Your task to perform on an android device: open sync settings in chrome Image 0: 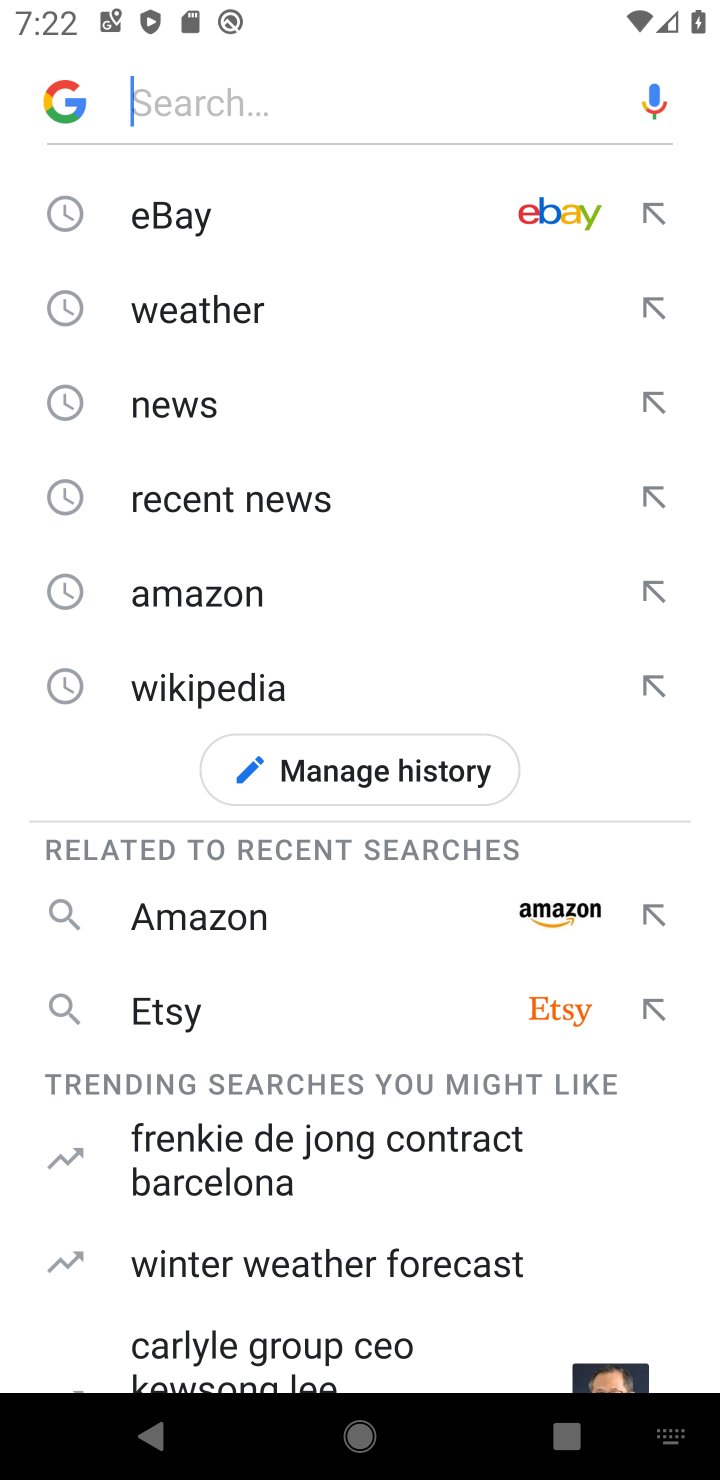
Step 0: press home button
Your task to perform on an android device: open sync settings in chrome Image 1: 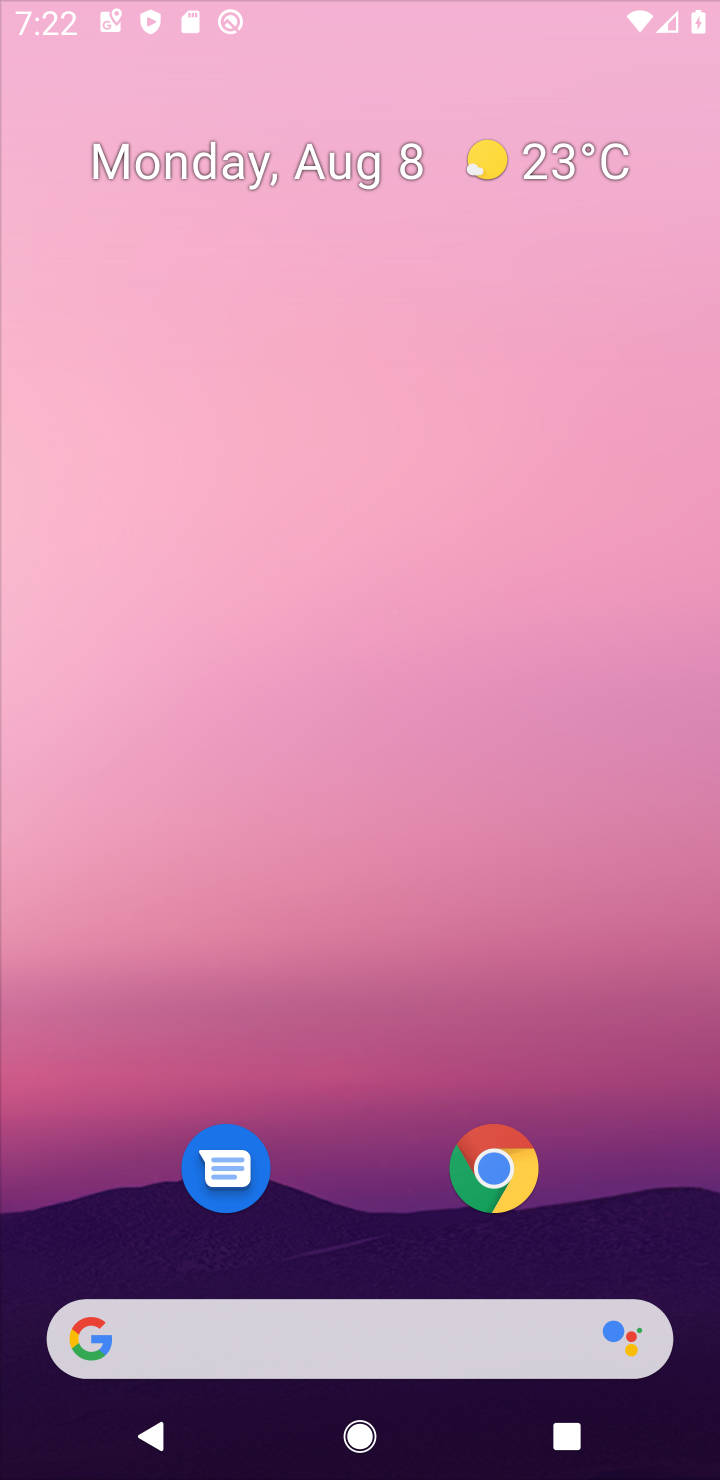
Step 1: drag from (613, 1213) to (190, 3)
Your task to perform on an android device: open sync settings in chrome Image 2: 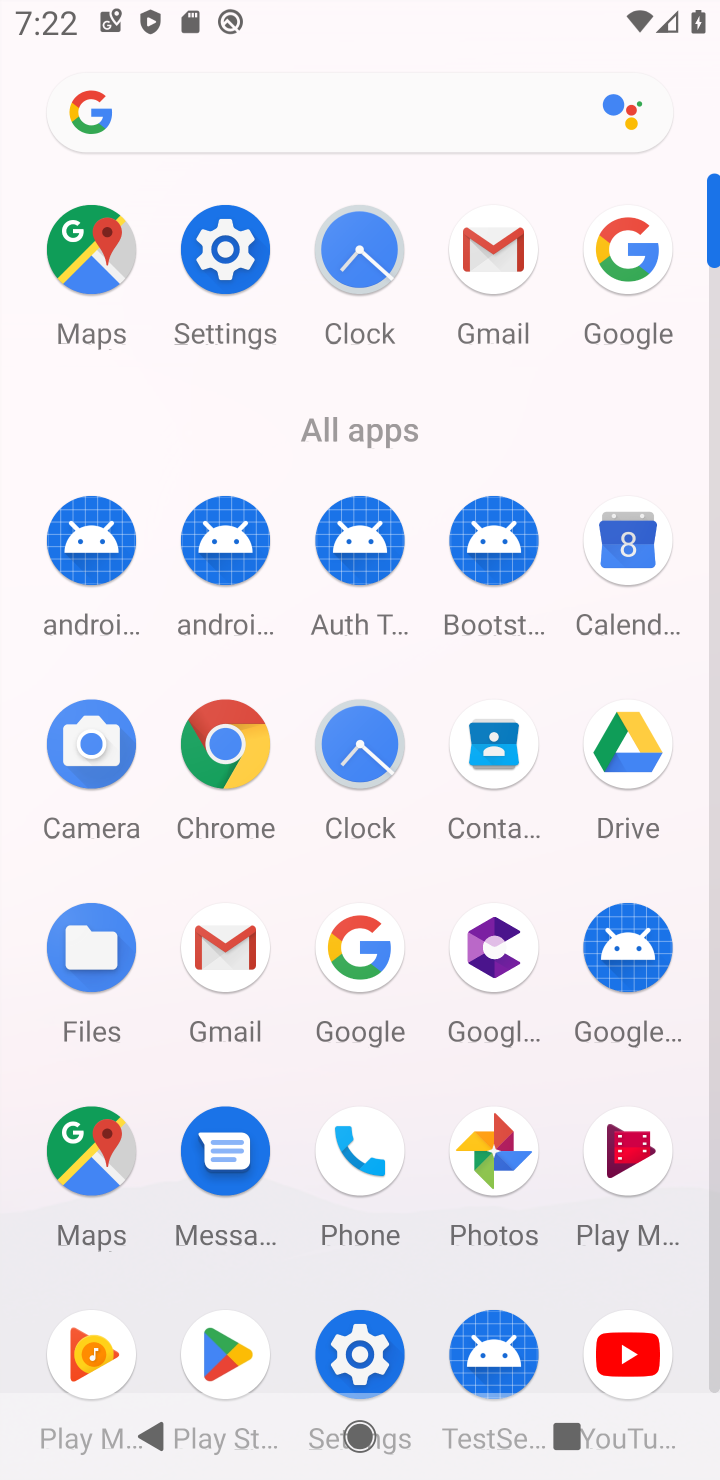
Step 2: click (212, 777)
Your task to perform on an android device: open sync settings in chrome Image 3: 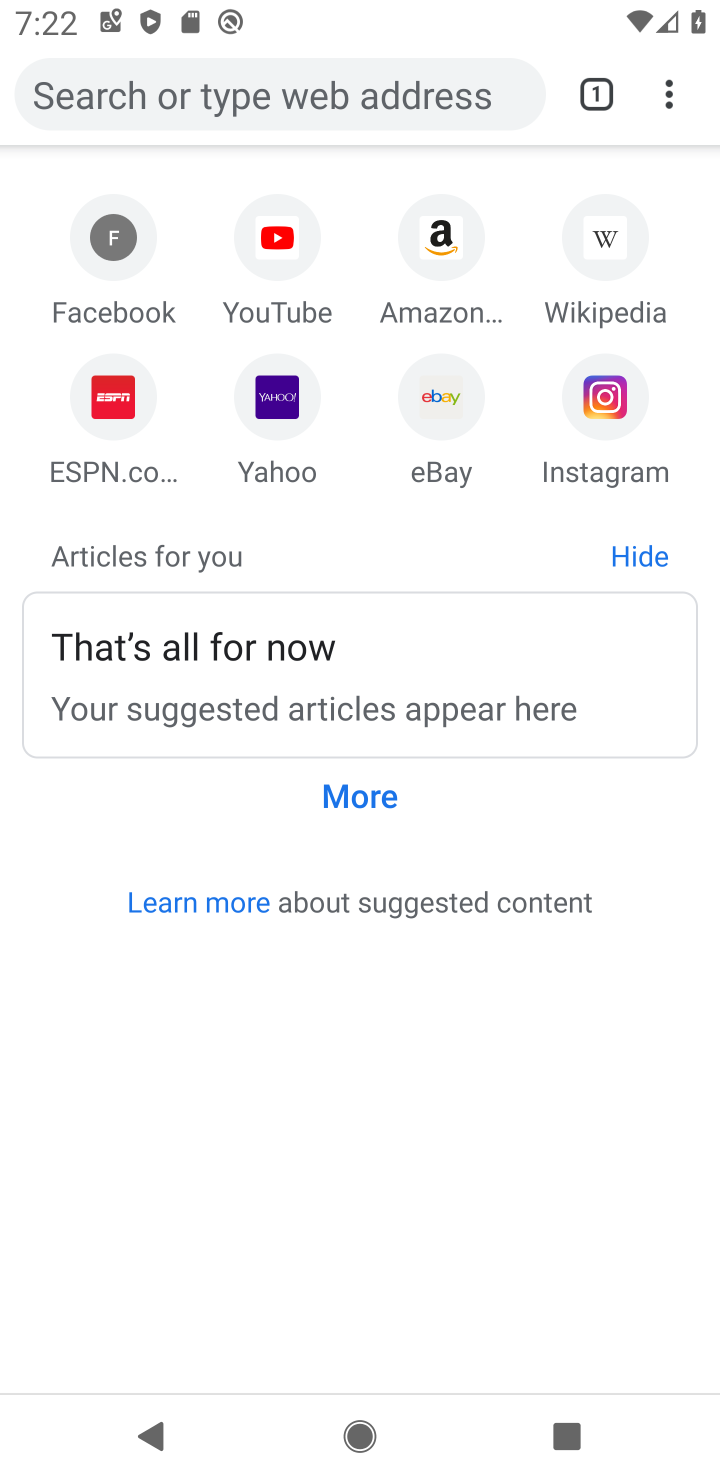
Step 3: click (668, 92)
Your task to perform on an android device: open sync settings in chrome Image 4: 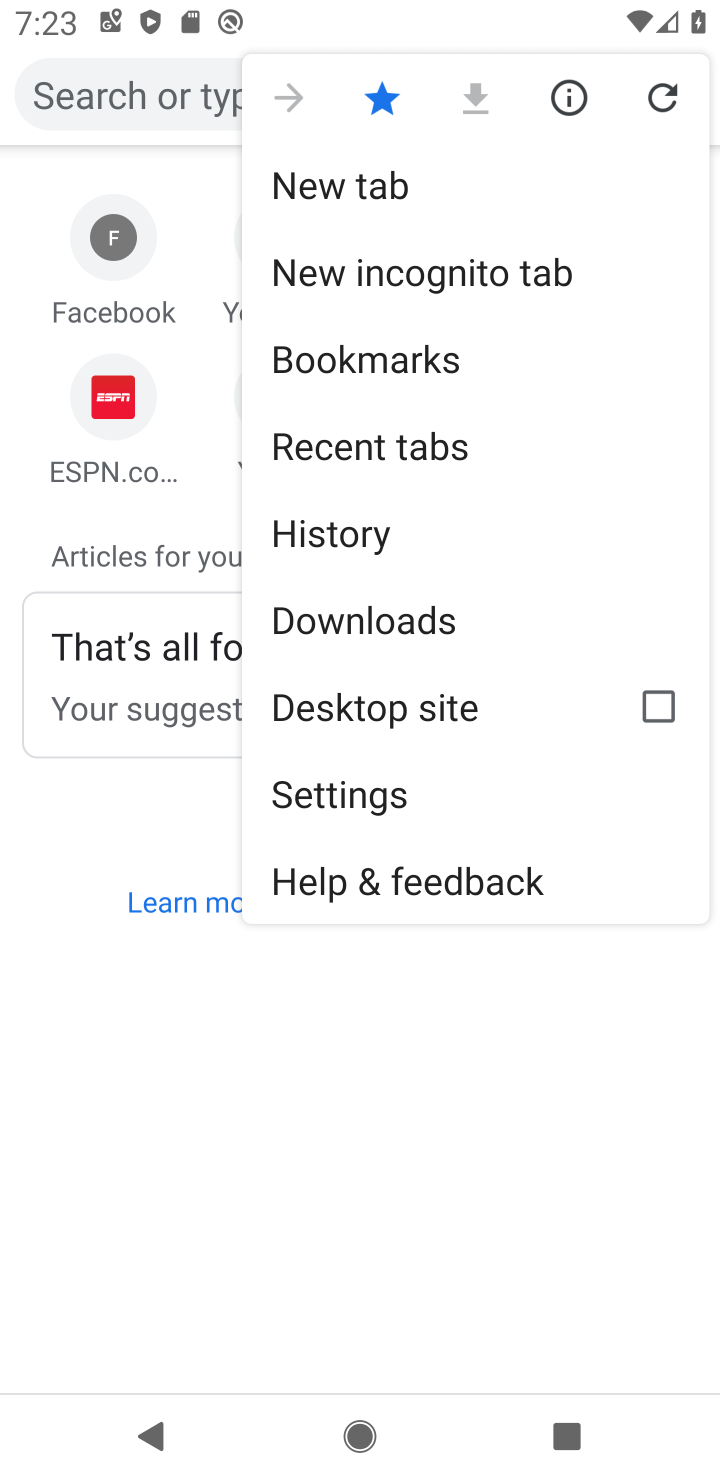
Step 4: click (386, 809)
Your task to perform on an android device: open sync settings in chrome Image 5: 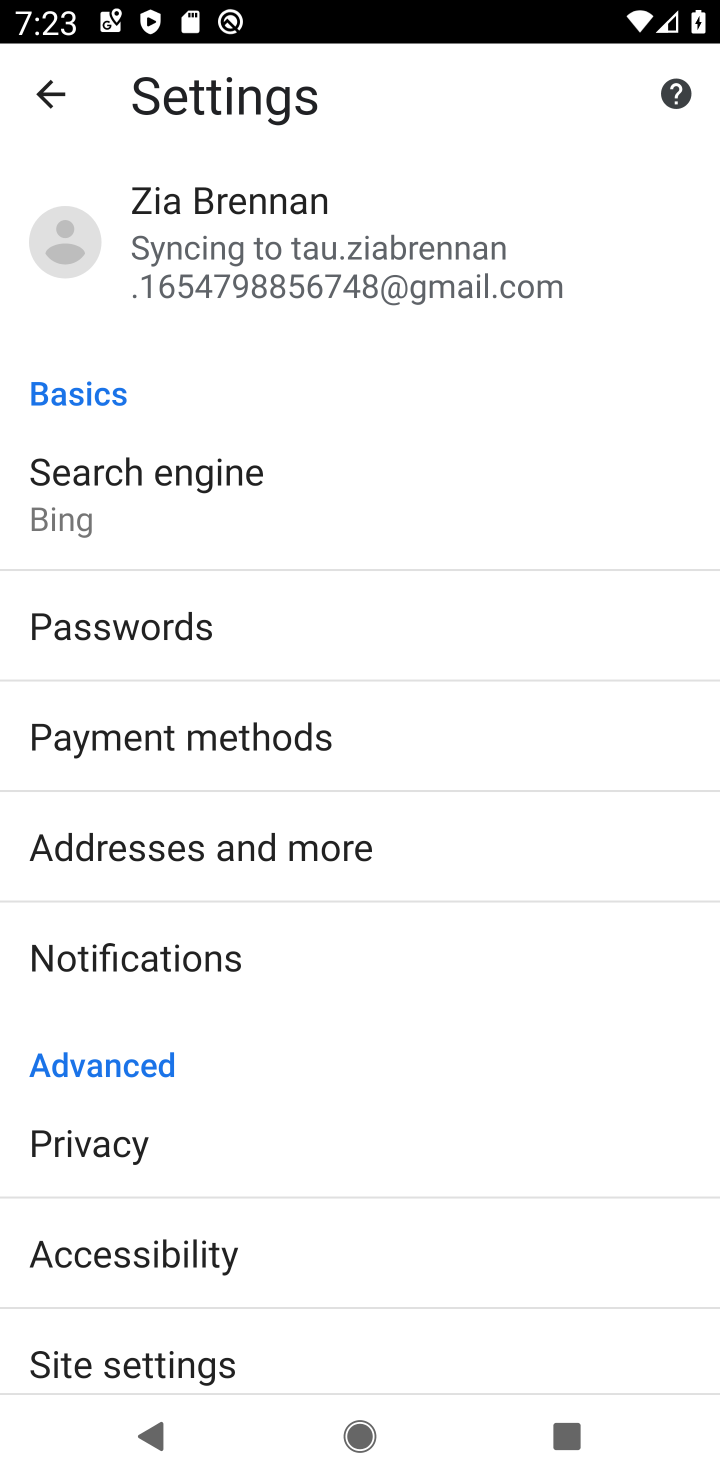
Step 5: click (193, 1343)
Your task to perform on an android device: open sync settings in chrome Image 6: 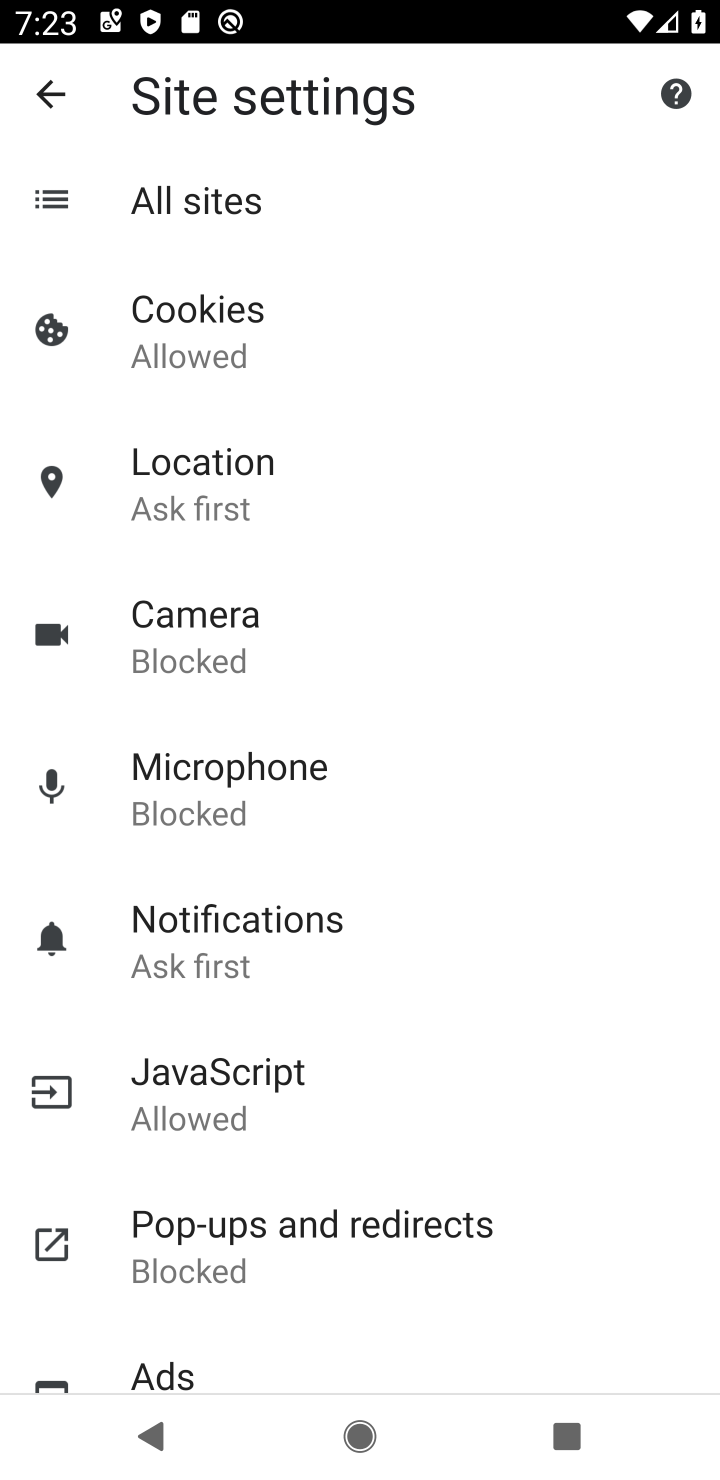
Step 6: drag from (184, 1222) to (124, 367)
Your task to perform on an android device: open sync settings in chrome Image 7: 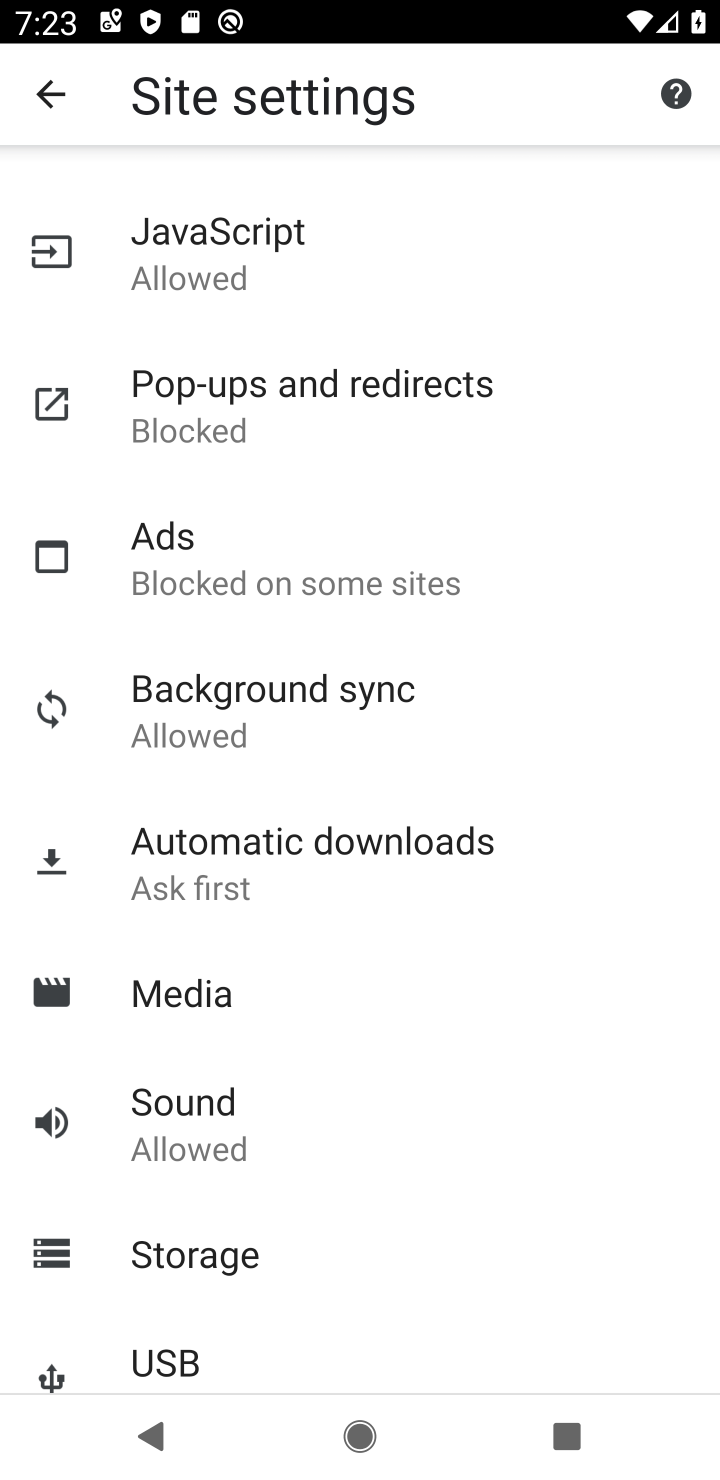
Step 7: click (168, 708)
Your task to perform on an android device: open sync settings in chrome Image 8: 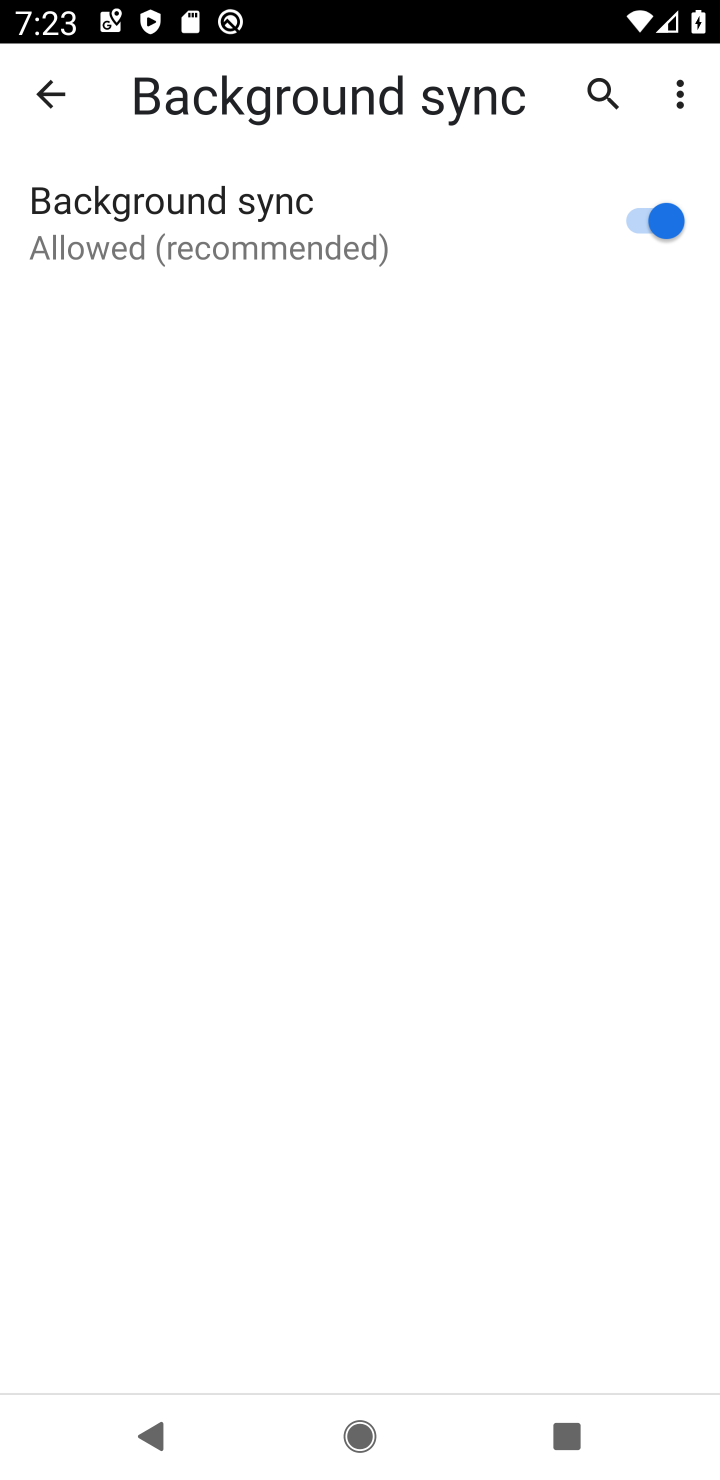
Step 8: task complete